Your task to perform on an android device: change the upload size in google photos Image 0: 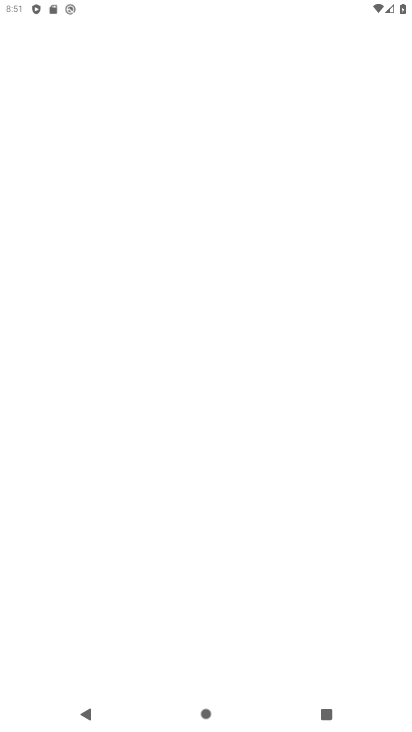
Step 0: drag from (185, 626) to (267, 212)
Your task to perform on an android device: change the upload size in google photos Image 1: 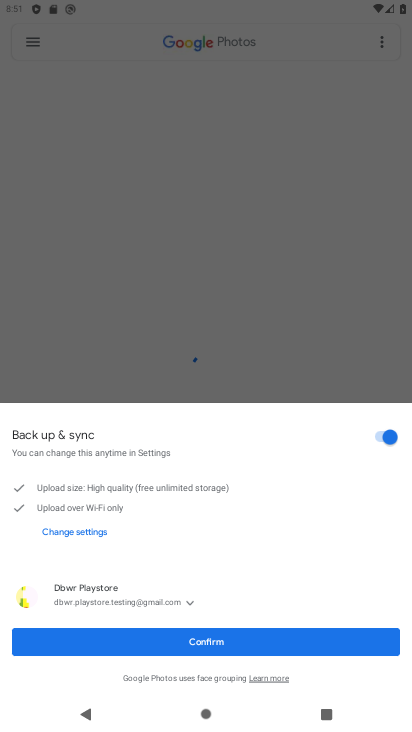
Step 1: click (218, 639)
Your task to perform on an android device: change the upload size in google photos Image 2: 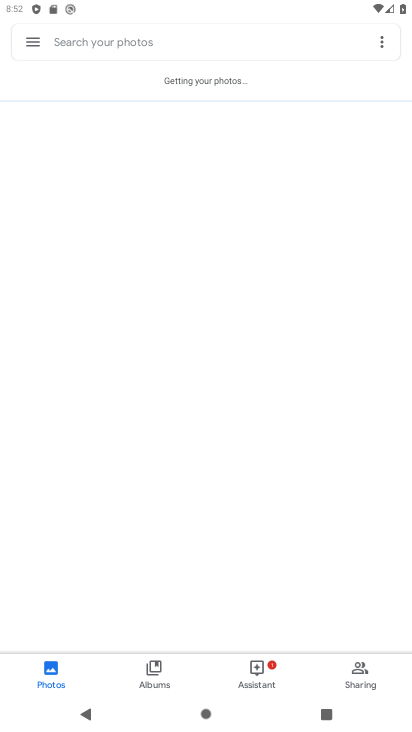
Step 2: click (31, 35)
Your task to perform on an android device: change the upload size in google photos Image 3: 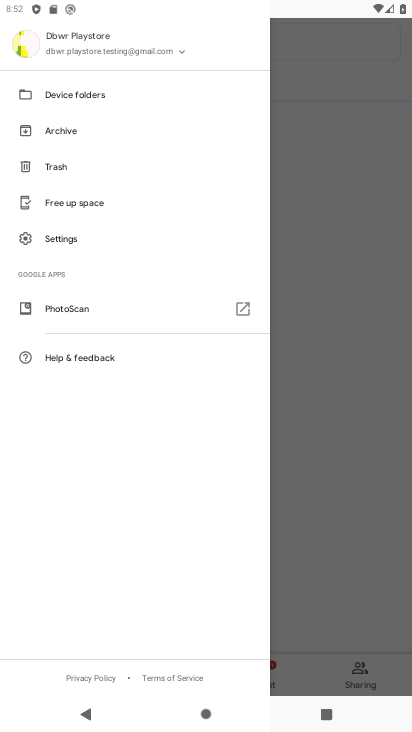
Step 3: click (102, 240)
Your task to perform on an android device: change the upload size in google photos Image 4: 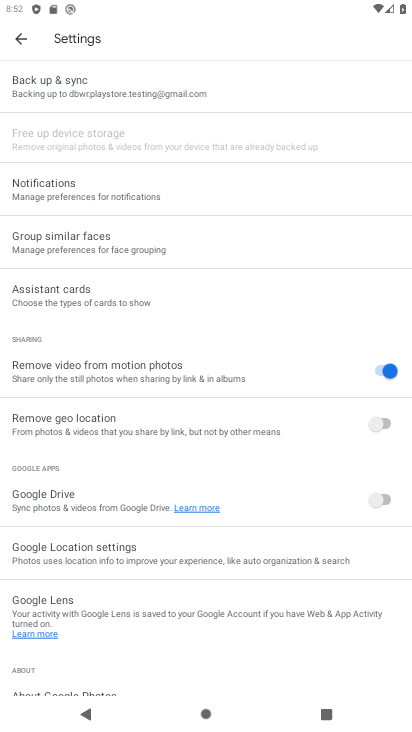
Step 4: click (163, 96)
Your task to perform on an android device: change the upload size in google photos Image 5: 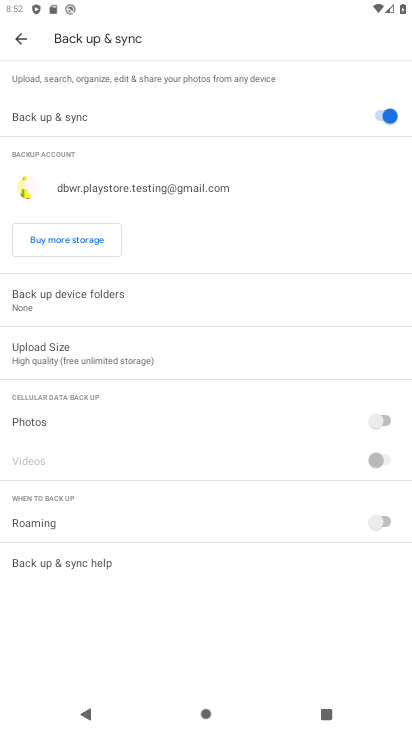
Step 5: click (135, 358)
Your task to perform on an android device: change the upload size in google photos Image 6: 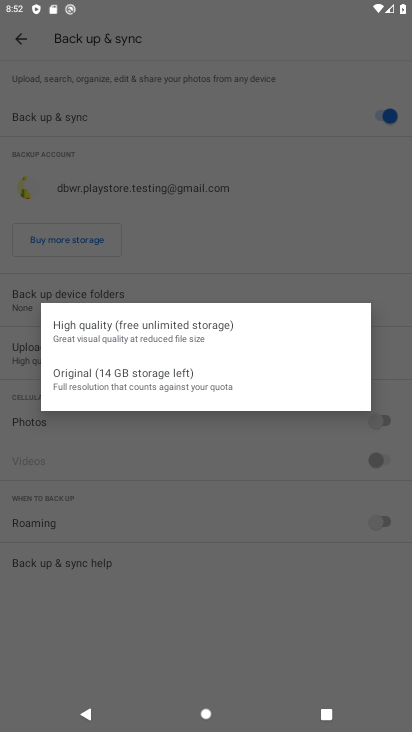
Step 6: click (142, 376)
Your task to perform on an android device: change the upload size in google photos Image 7: 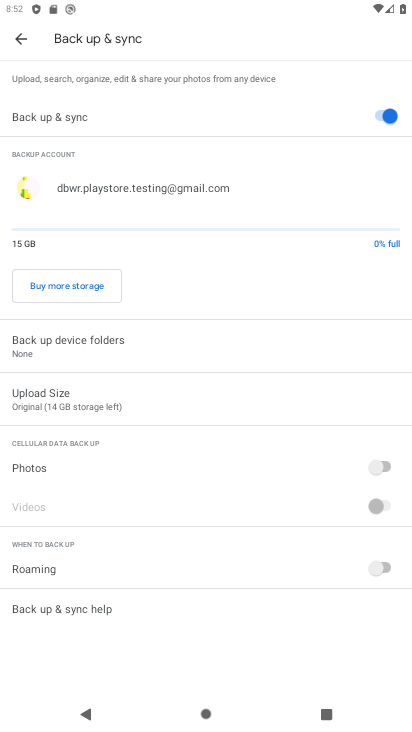
Step 7: task complete